Your task to perform on an android device: Open display settings Image 0: 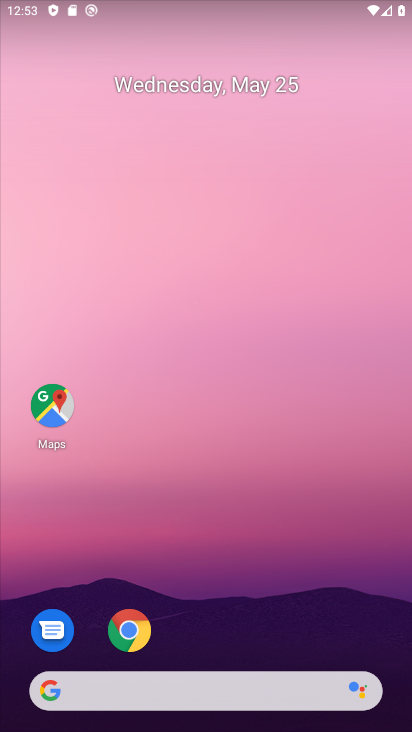
Step 0: drag from (324, 684) to (152, 65)
Your task to perform on an android device: Open display settings Image 1: 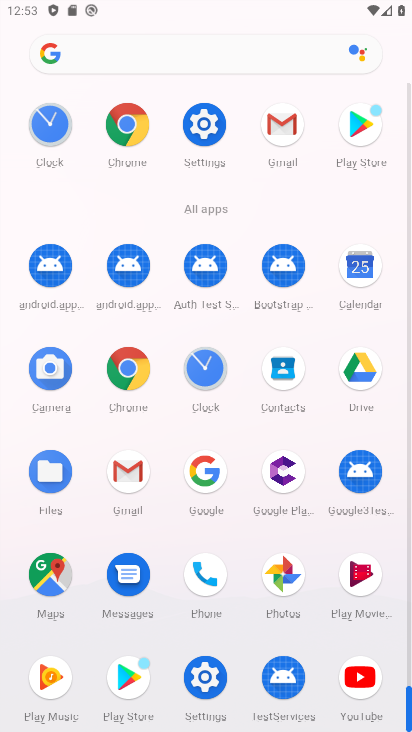
Step 1: click (192, 121)
Your task to perform on an android device: Open display settings Image 2: 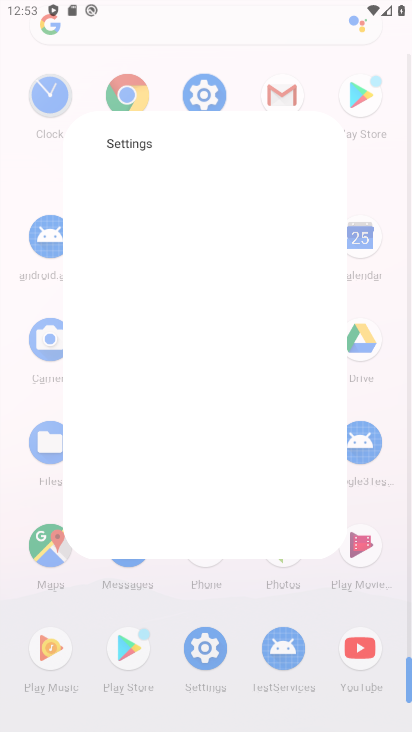
Step 2: click (200, 122)
Your task to perform on an android device: Open display settings Image 3: 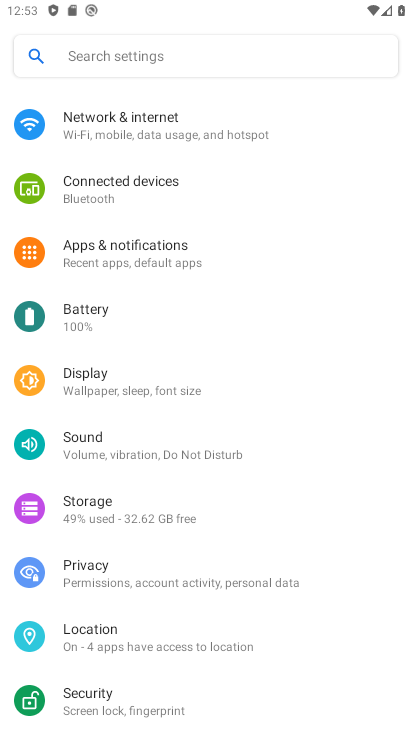
Step 3: click (204, 121)
Your task to perform on an android device: Open display settings Image 4: 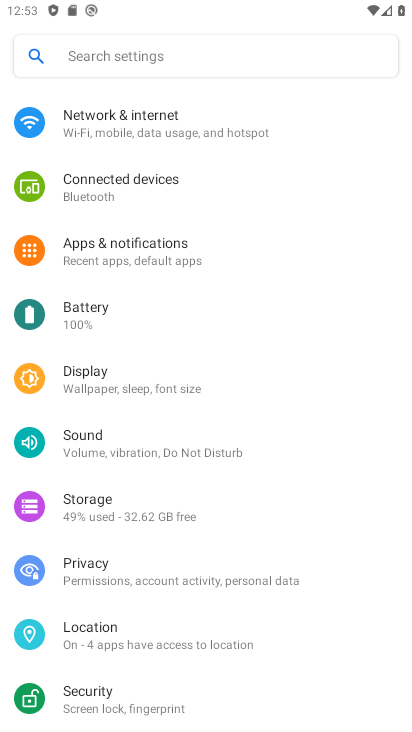
Step 4: click (205, 121)
Your task to perform on an android device: Open display settings Image 5: 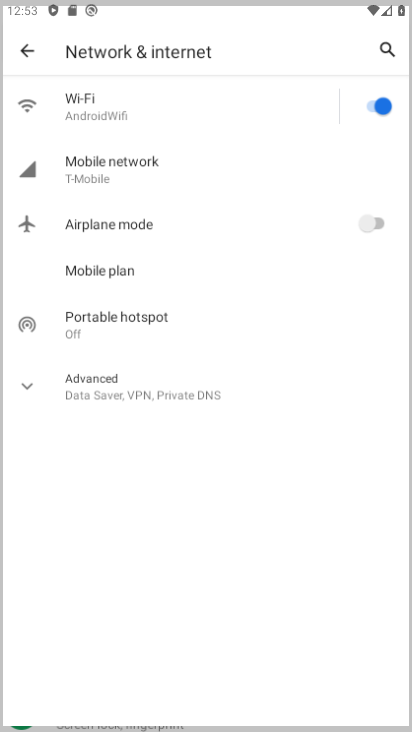
Step 5: click (206, 124)
Your task to perform on an android device: Open display settings Image 6: 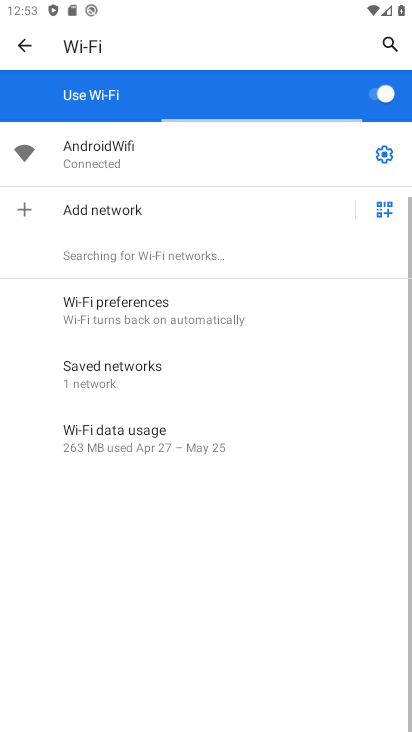
Step 6: click (26, 52)
Your task to perform on an android device: Open display settings Image 7: 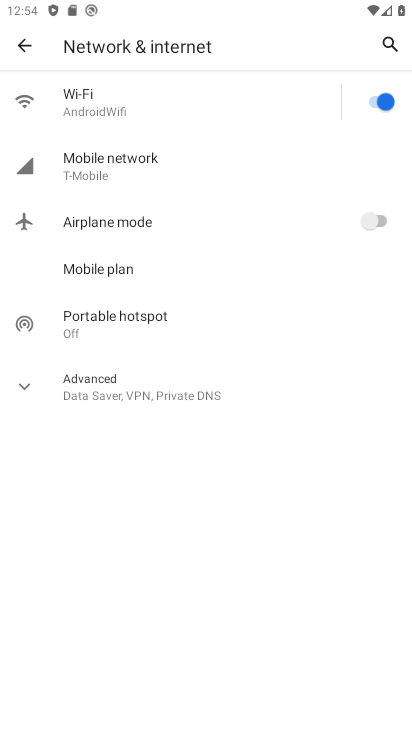
Step 7: click (19, 49)
Your task to perform on an android device: Open display settings Image 8: 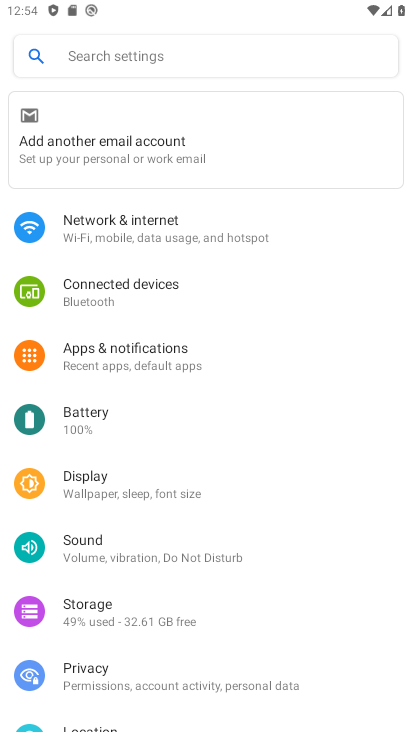
Step 8: click (90, 474)
Your task to perform on an android device: Open display settings Image 9: 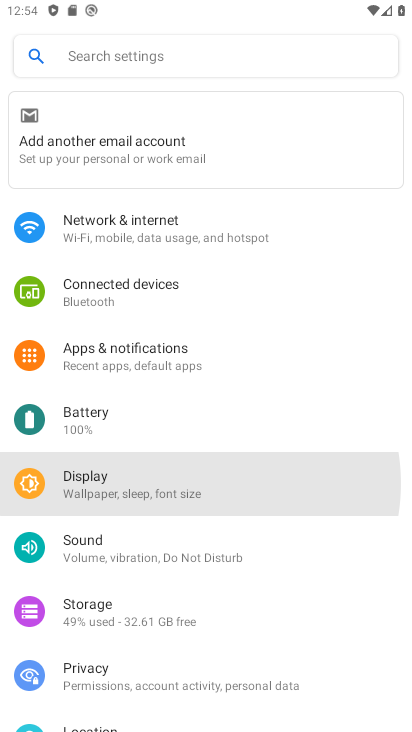
Step 9: click (89, 474)
Your task to perform on an android device: Open display settings Image 10: 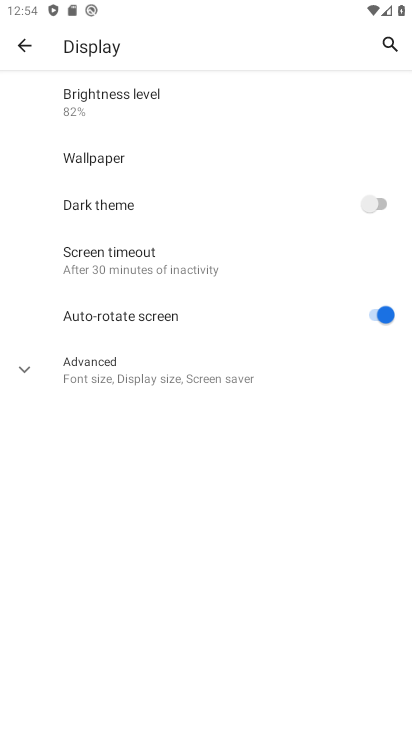
Step 10: click (85, 482)
Your task to perform on an android device: Open display settings Image 11: 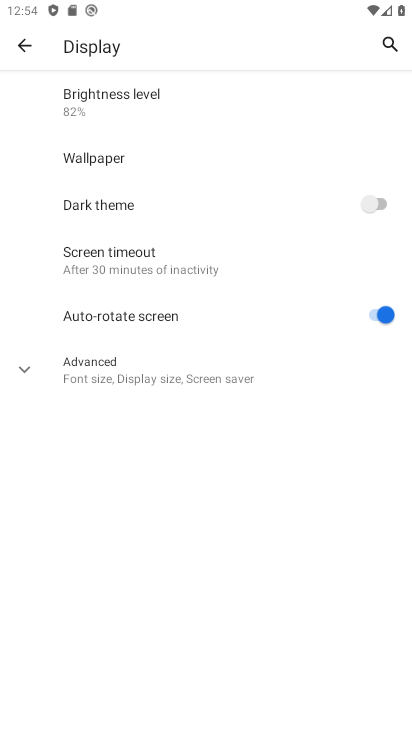
Step 11: click (91, 480)
Your task to perform on an android device: Open display settings Image 12: 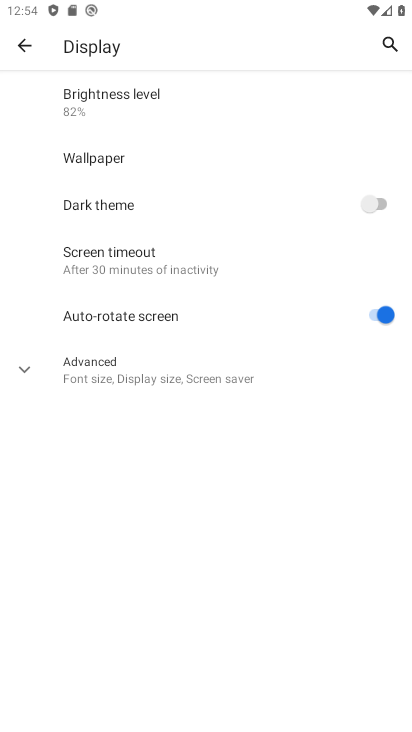
Step 12: click (91, 480)
Your task to perform on an android device: Open display settings Image 13: 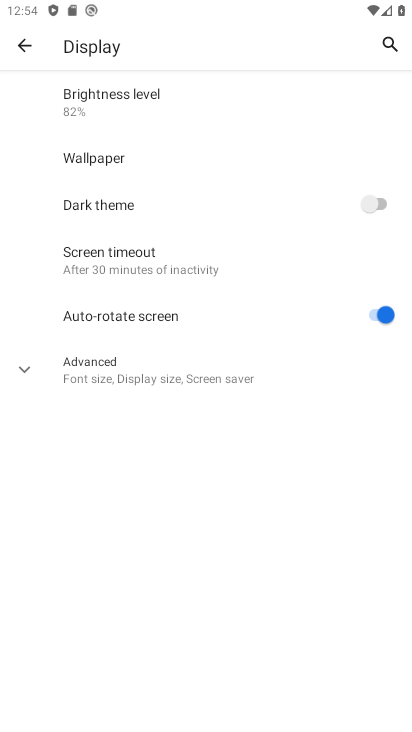
Step 13: task complete